Your task to perform on an android device: turn off smart reply in the gmail app Image 0: 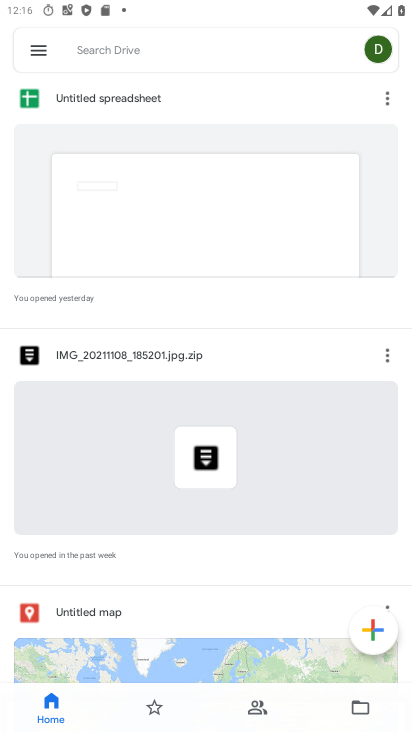
Step 0: press home button
Your task to perform on an android device: turn off smart reply in the gmail app Image 1: 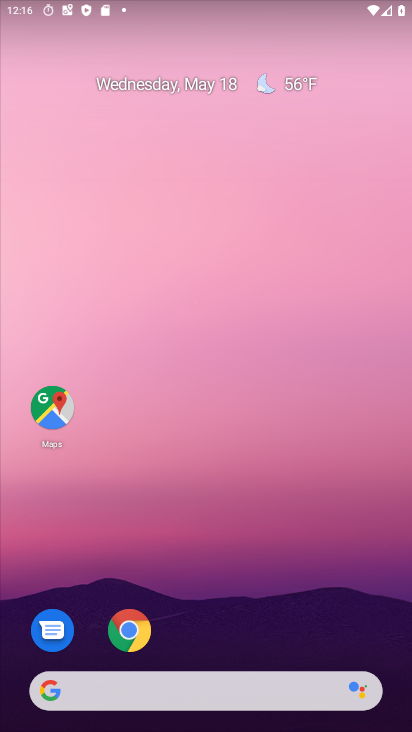
Step 1: drag from (240, 548) to (144, 2)
Your task to perform on an android device: turn off smart reply in the gmail app Image 2: 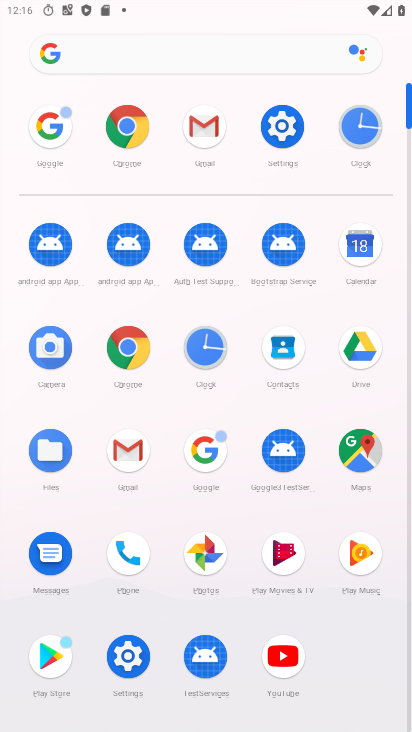
Step 2: click (203, 125)
Your task to perform on an android device: turn off smart reply in the gmail app Image 3: 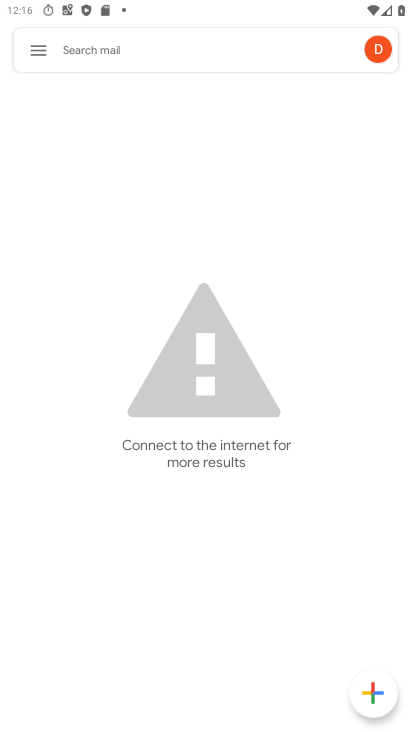
Step 3: click (37, 42)
Your task to perform on an android device: turn off smart reply in the gmail app Image 4: 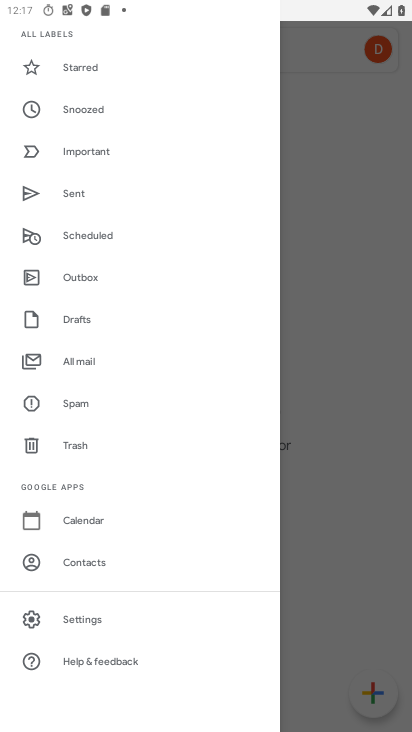
Step 4: click (68, 147)
Your task to perform on an android device: turn off smart reply in the gmail app Image 5: 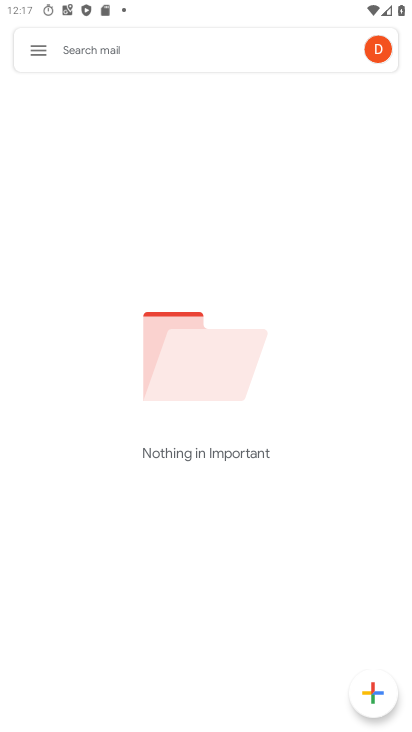
Step 5: click (19, 51)
Your task to perform on an android device: turn off smart reply in the gmail app Image 6: 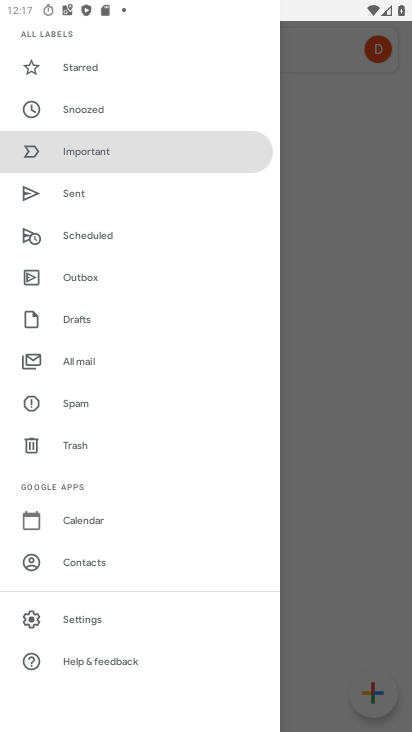
Step 6: click (87, 363)
Your task to perform on an android device: turn off smart reply in the gmail app Image 7: 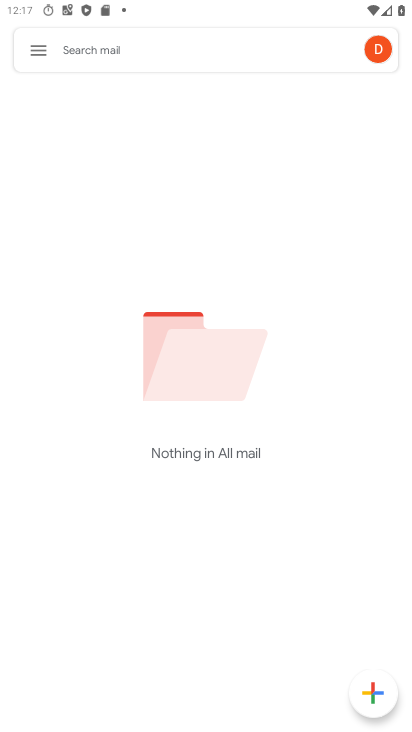
Step 7: task complete